Your task to perform on an android device: Go to location settings Image 0: 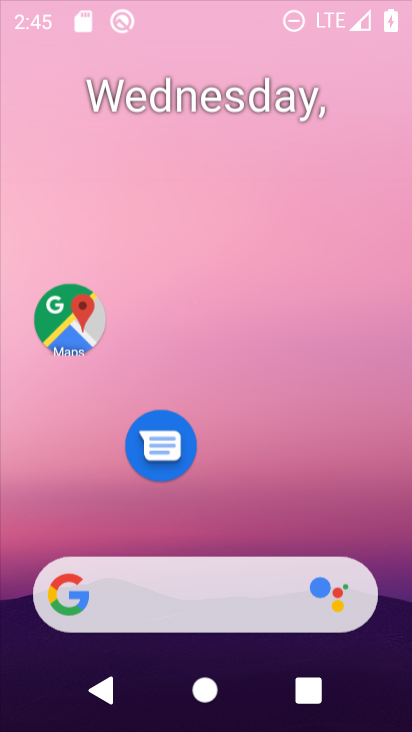
Step 0: drag from (359, 515) to (337, 56)
Your task to perform on an android device: Go to location settings Image 1: 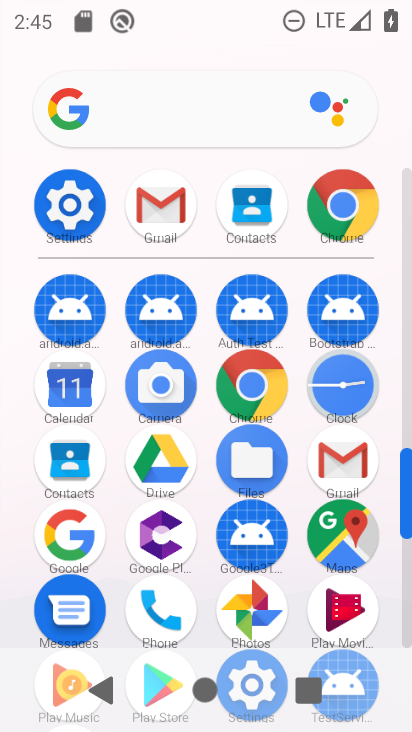
Step 1: click (94, 231)
Your task to perform on an android device: Go to location settings Image 2: 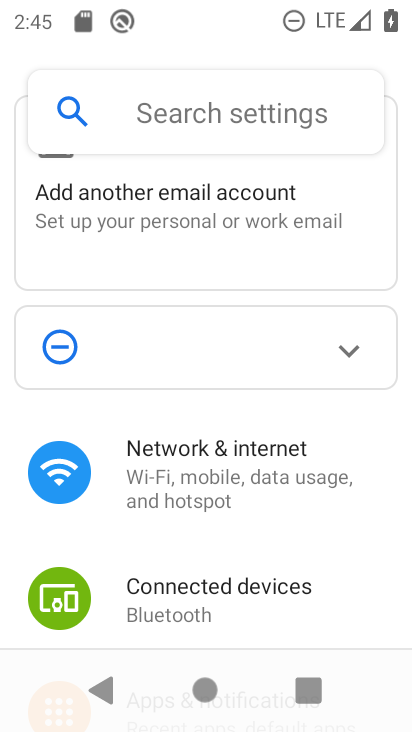
Step 2: drag from (301, 556) to (304, 116)
Your task to perform on an android device: Go to location settings Image 3: 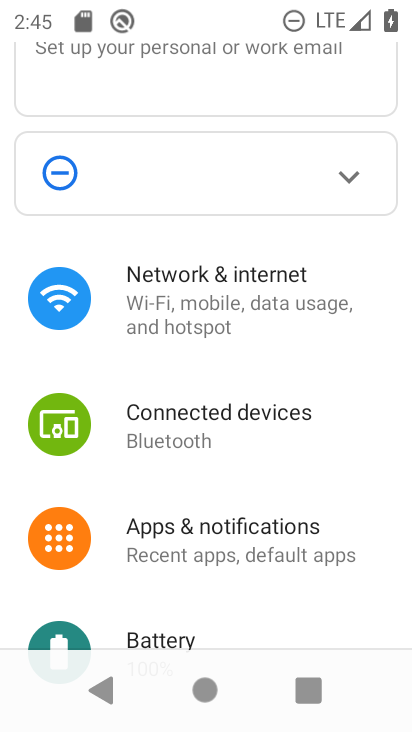
Step 3: drag from (181, 529) to (193, 338)
Your task to perform on an android device: Go to location settings Image 4: 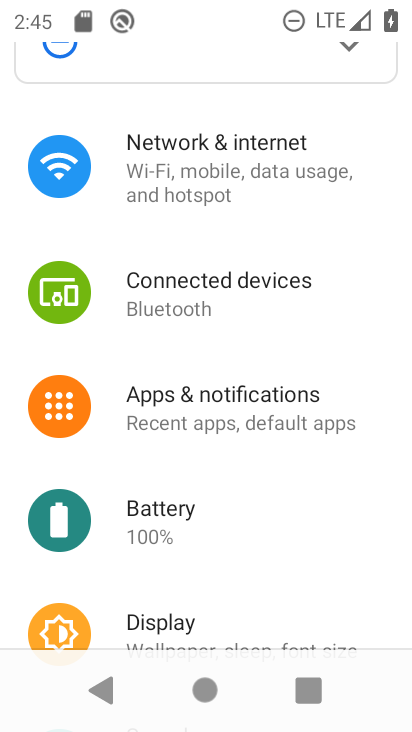
Step 4: drag from (176, 575) to (257, 198)
Your task to perform on an android device: Go to location settings Image 5: 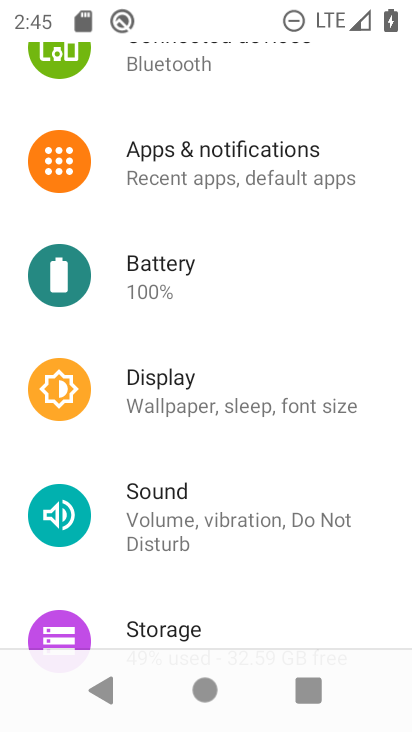
Step 5: drag from (226, 475) to (259, 249)
Your task to perform on an android device: Go to location settings Image 6: 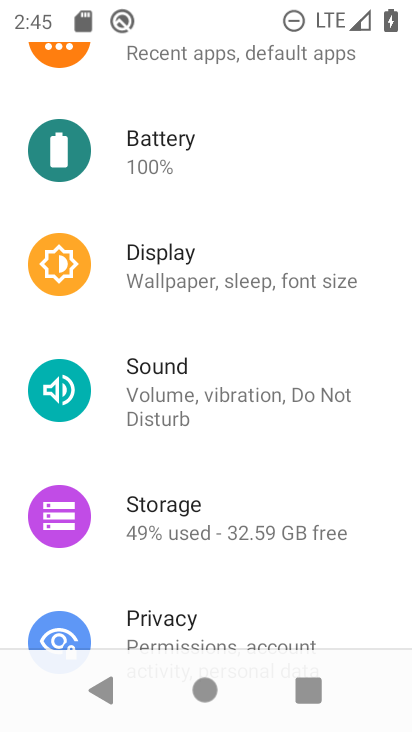
Step 6: drag from (216, 549) to (266, 103)
Your task to perform on an android device: Go to location settings Image 7: 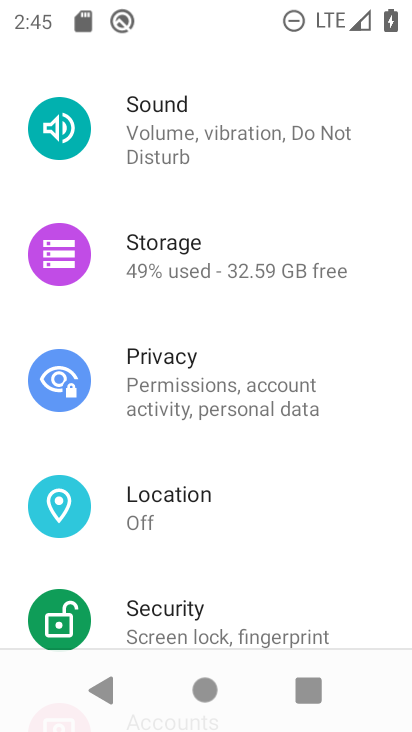
Step 7: click (259, 513)
Your task to perform on an android device: Go to location settings Image 8: 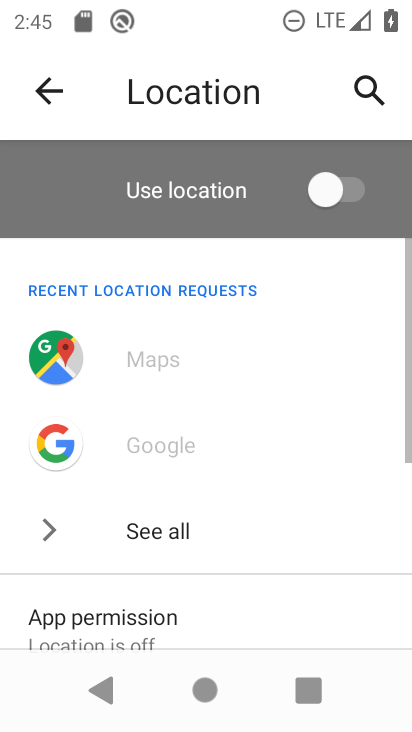
Step 8: task complete